Your task to perform on an android device: Search for "razer blade" on target, select the first entry, and add it to the cart. Image 0: 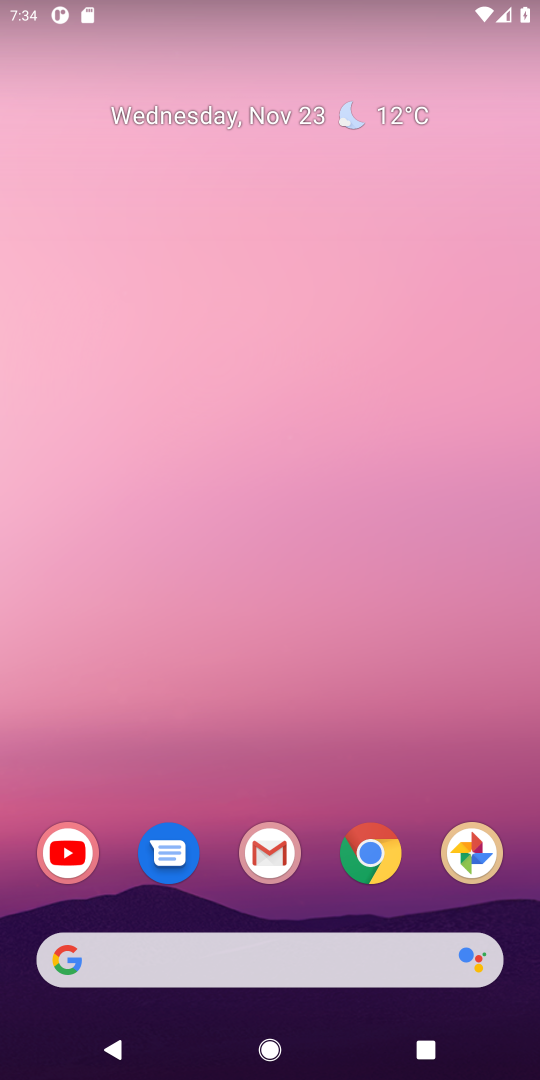
Step 0: click (379, 855)
Your task to perform on an android device: Search for "razer blade" on target, select the first entry, and add it to the cart. Image 1: 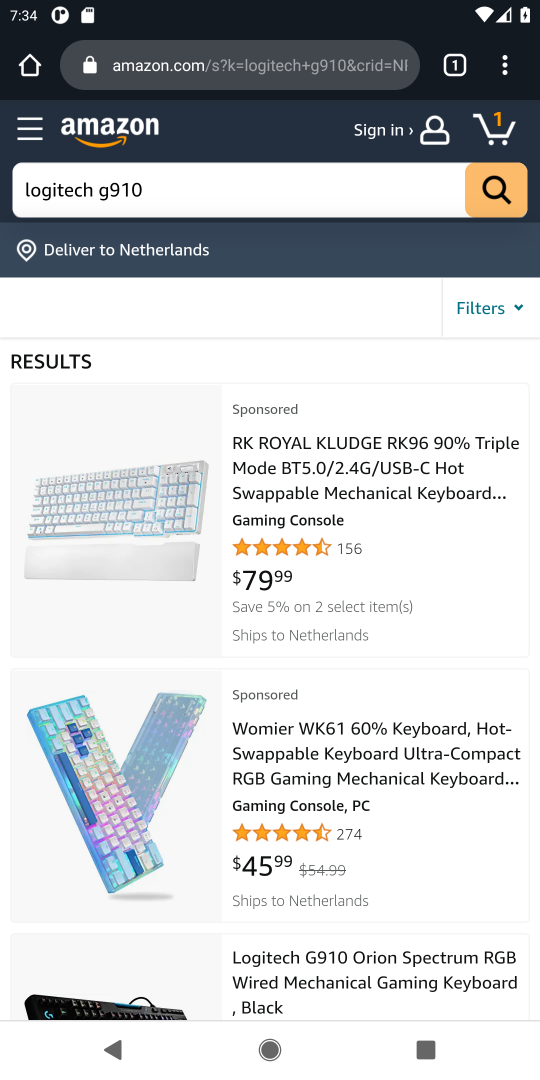
Step 1: click (293, 73)
Your task to perform on an android device: Search for "razer blade" on target, select the first entry, and add it to the cart. Image 2: 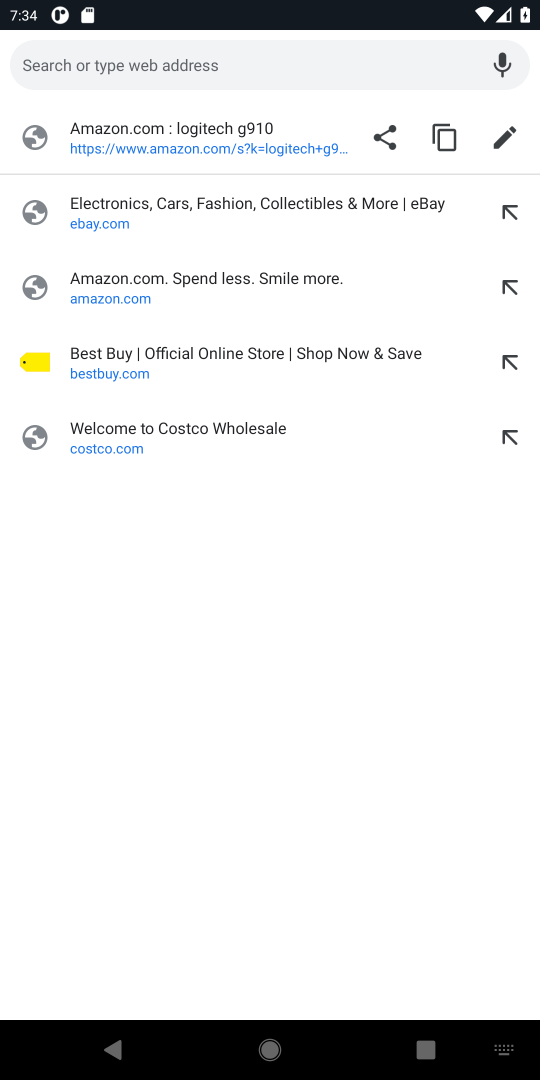
Step 2: type "target.com"
Your task to perform on an android device: Search for "razer blade" on target, select the first entry, and add it to the cart. Image 3: 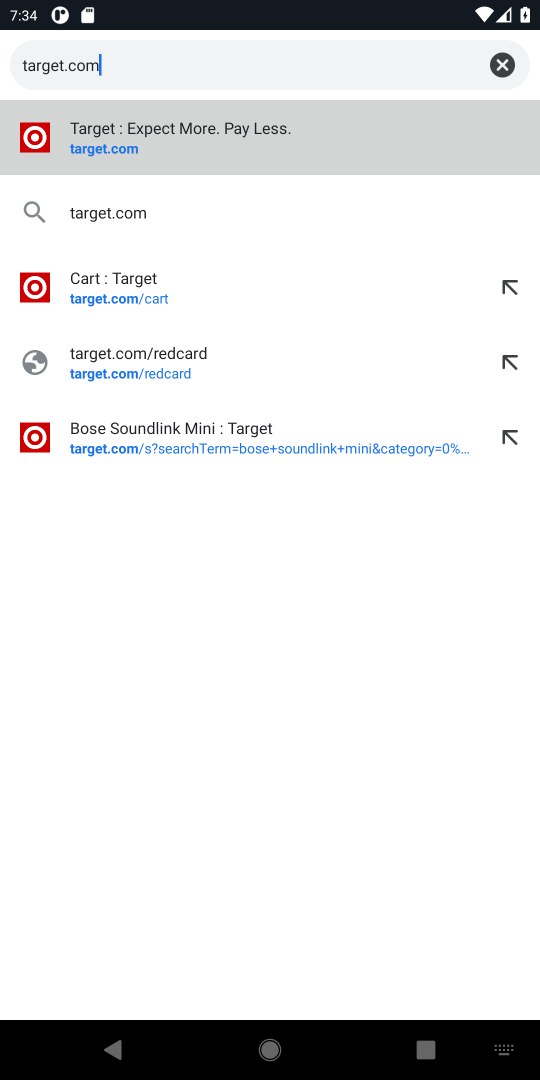
Step 3: click (132, 152)
Your task to perform on an android device: Search for "razer blade" on target, select the first entry, and add it to the cart. Image 4: 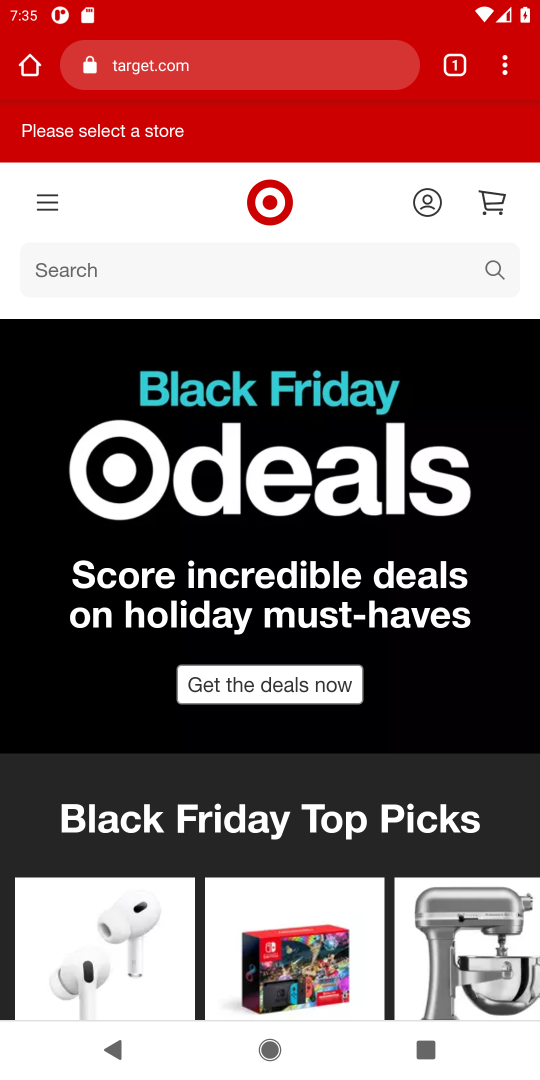
Step 4: click (495, 267)
Your task to perform on an android device: Search for "razer blade" on target, select the first entry, and add it to the cart. Image 5: 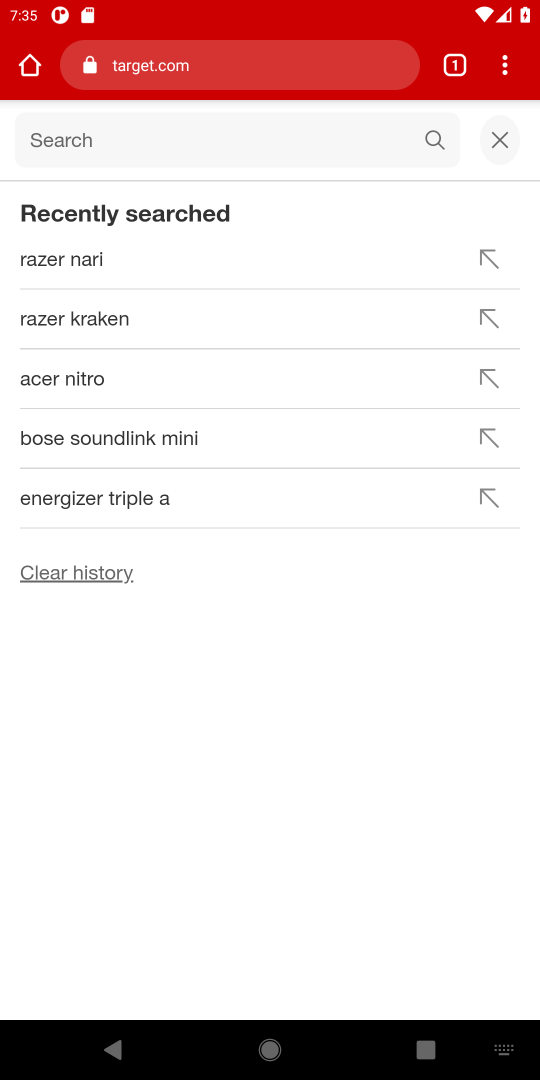
Step 5: type "razer blade"
Your task to perform on an android device: Search for "razer blade" on target, select the first entry, and add it to the cart. Image 6: 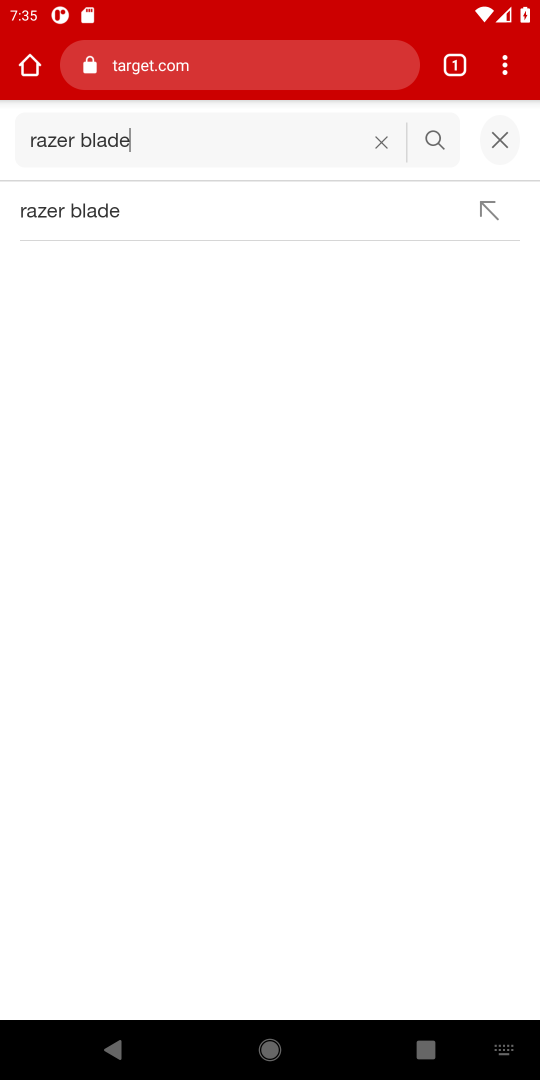
Step 6: click (72, 216)
Your task to perform on an android device: Search for "razer blade" on target, select the first entry, and add it to the cart. Image 7: 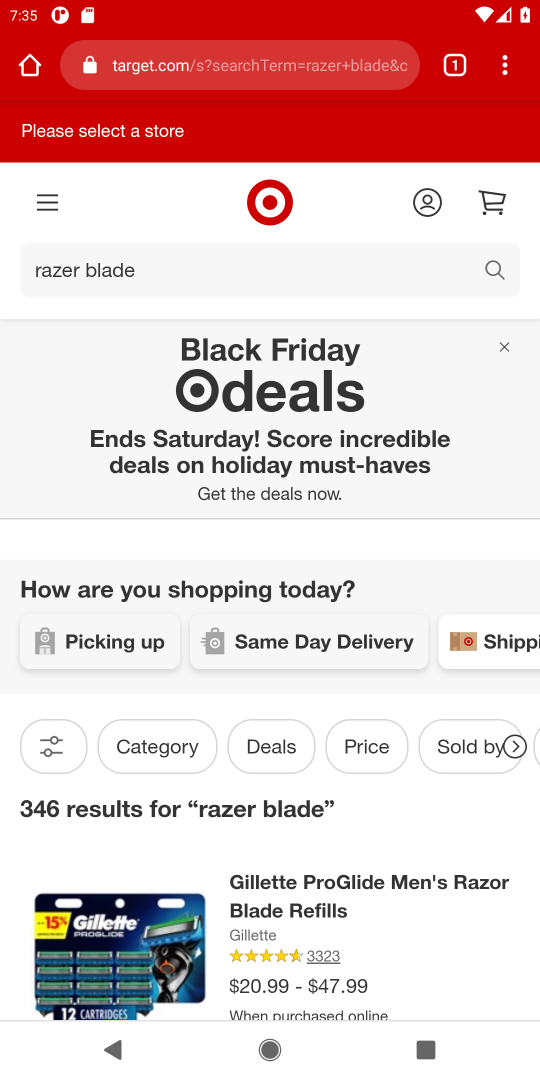
Step 7: task complete